Your task to perform on an android device: delete the emails in spam in the gmail app Image 0: 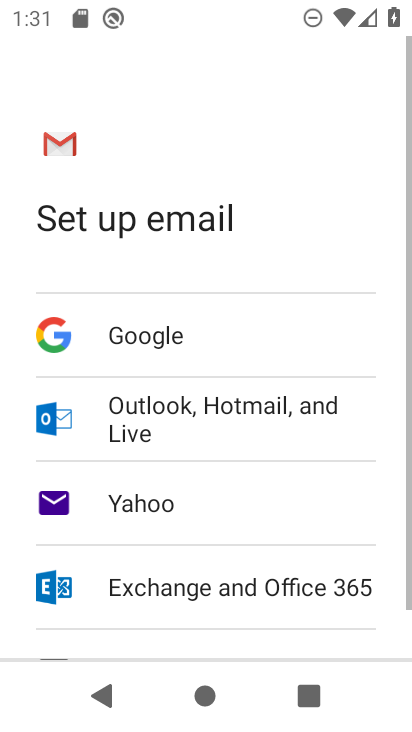
Step 0: press home button
Your task to perform on an android device: delete the emails in spam in the gmail app Image 1: 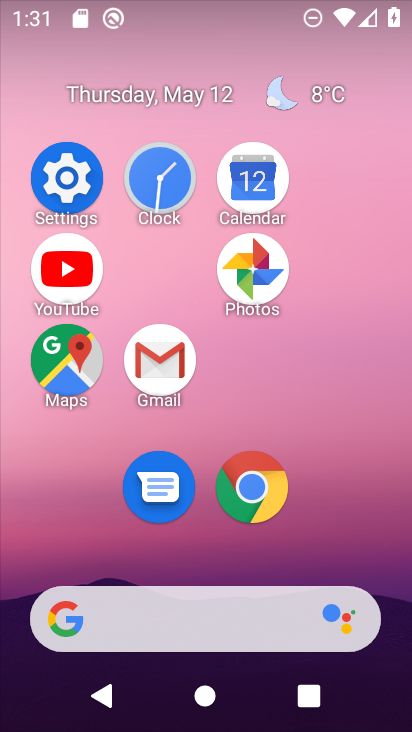
Step 1: click (153, 364)
Your task to perform on an android device: delete the emails in spam in the gmail app Image 2: 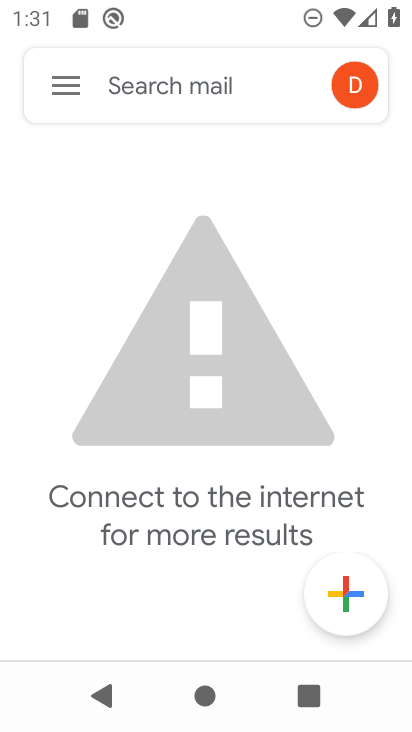
Step 2: click (45, 98)
Your task to perform on an android device: delete the emails in spam in the gmail app Image 3: 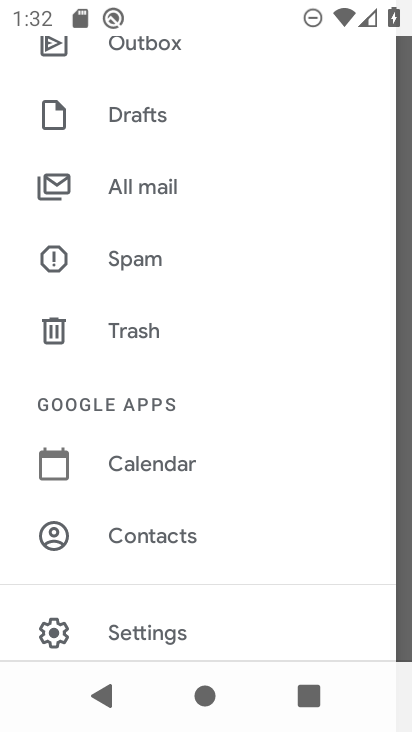
Step 3: click (130, 252)
Your task to perform on an android device: delete the emails in spam in the gmail app Image 4: 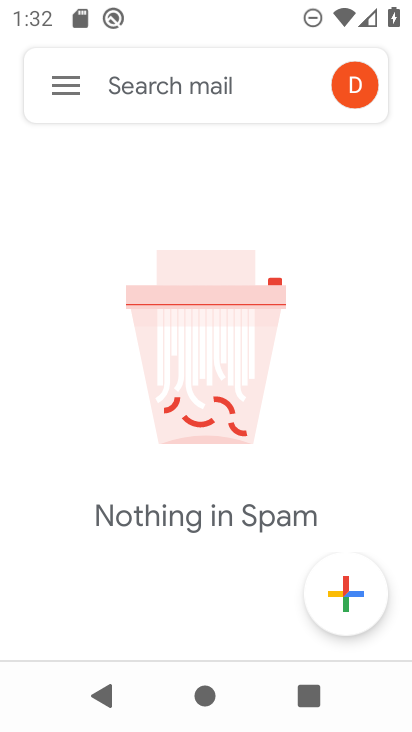
Step 4: task complete